Your task to perform on an android device: turn pop-ups on in chrome Image 0: 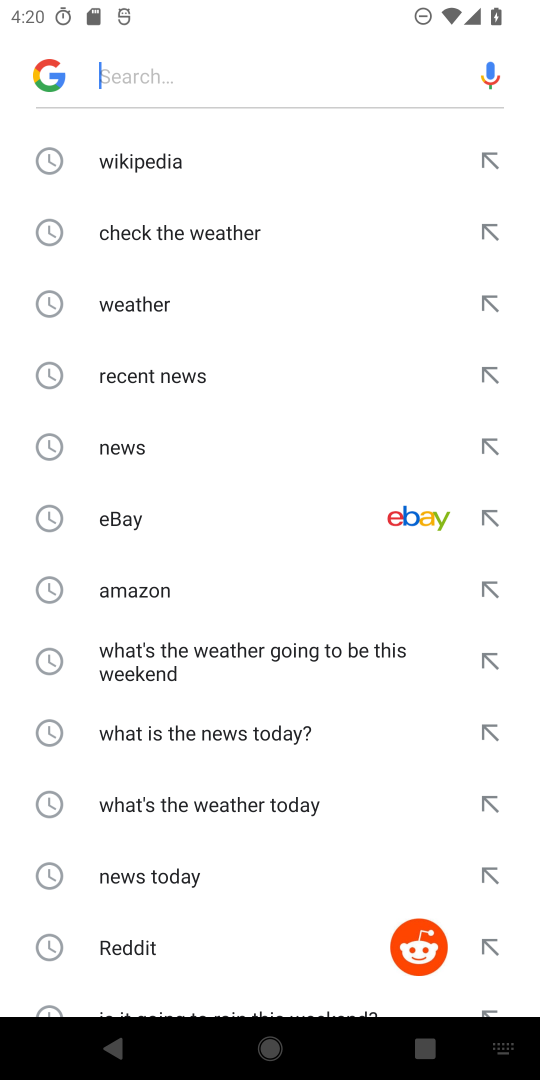
Step 0: press home button
Your task to perform on an android device: turn pop-ups on in chrome Image 1: 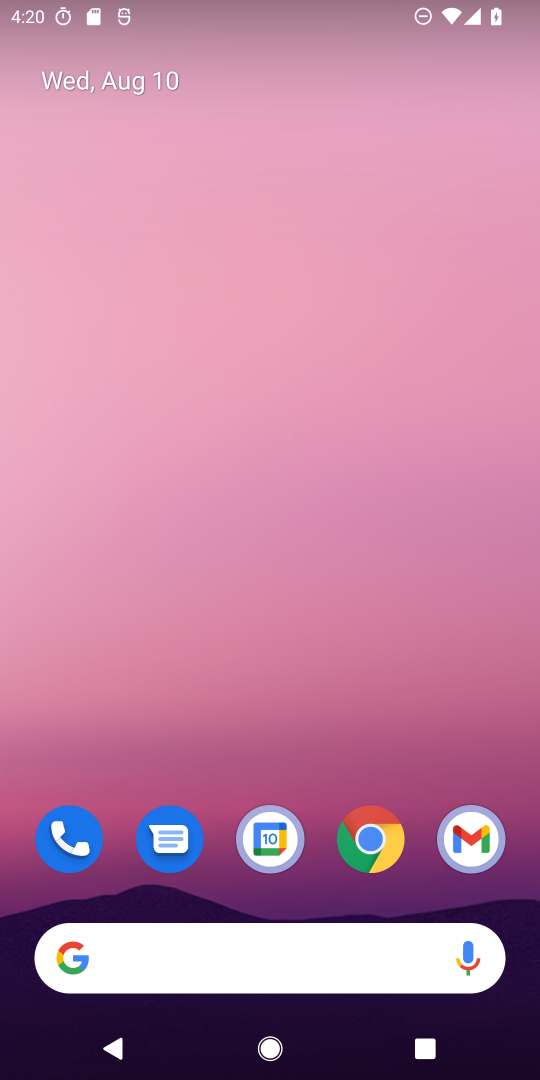
Step 1: click (373, 853)
Your task to perform on an android device: turn pop-ups on in chrome Image 2: 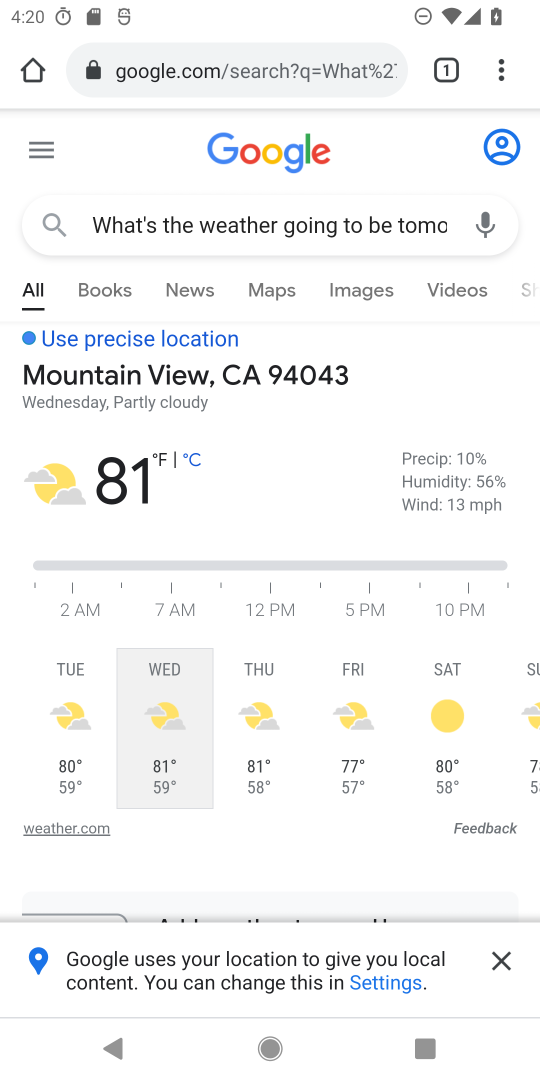
Step 2: click (504, 79)
Your task to perform on an android device: turn pop-ups on in chrome Image 3: 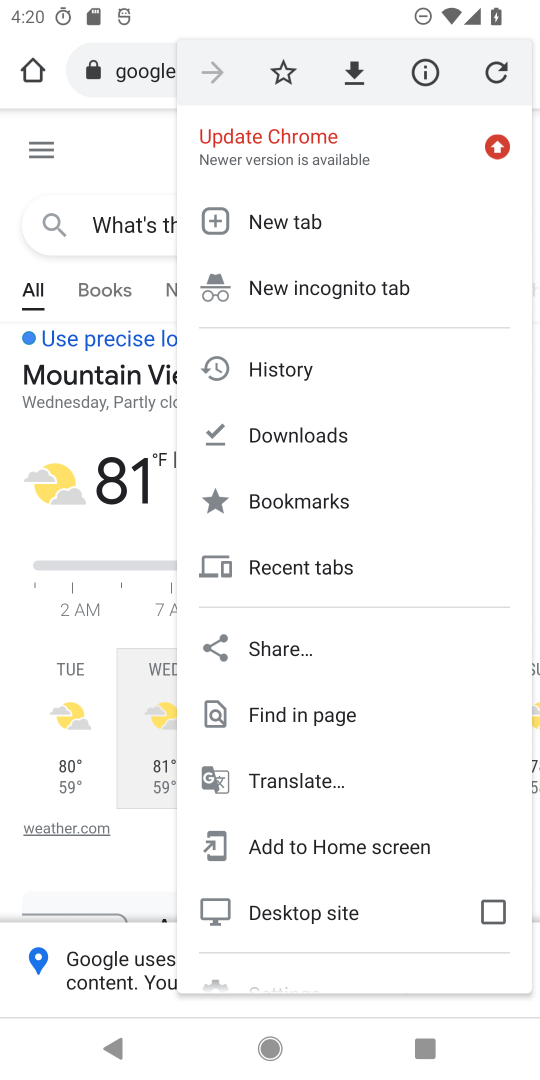
Step 3: drag from (440, 942) to (415, 633)
Your task to perform on an android device: turn pop-ups on in chrome Image 4: 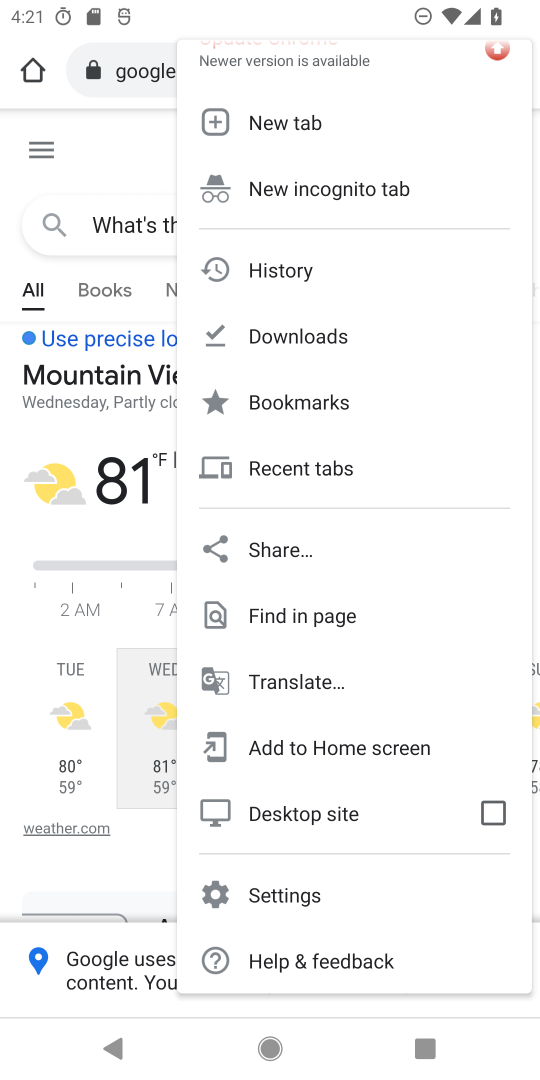
Step 4: click (290, 897)
Your task to perform on an android device: turn pop-ups on in chrome Image 5: 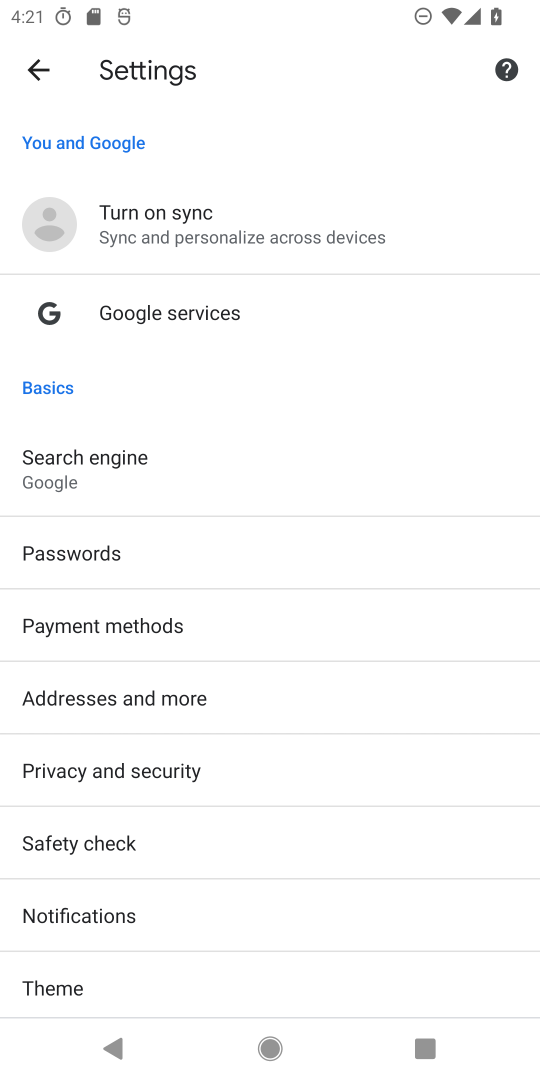
Step 5: drag from (331, 957) to (271, 461)
Your task to perform on an android device: turn pop-ups on in chrome Image 6: 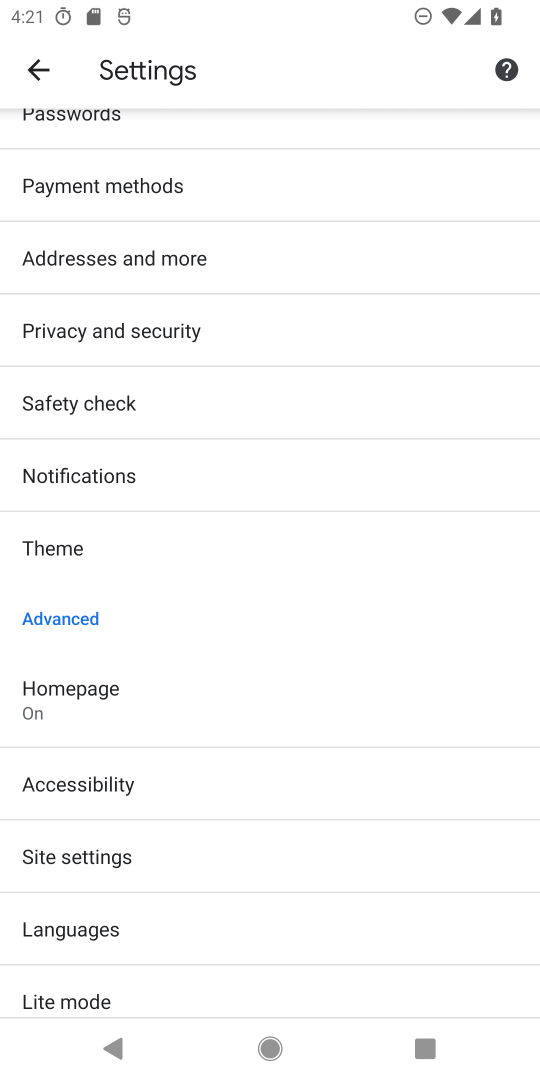
Step 6: click (94, 856)
Your task to perform on an android device: turn pop-ups on in chrome Image 7: 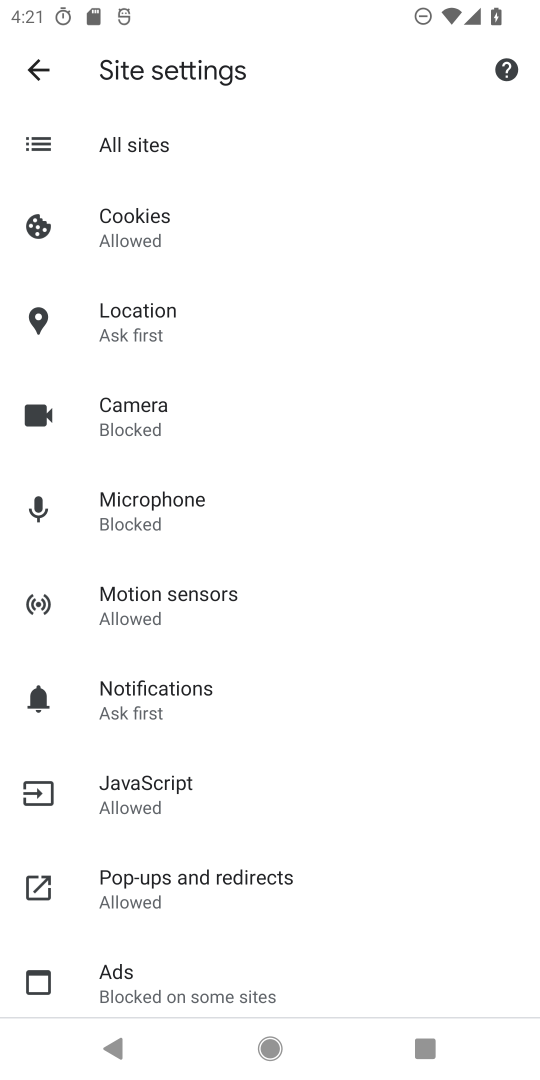
Step 7: click (169, 886)
Your task to perform on an android device: turn pop-ups on in chrome Image 8: 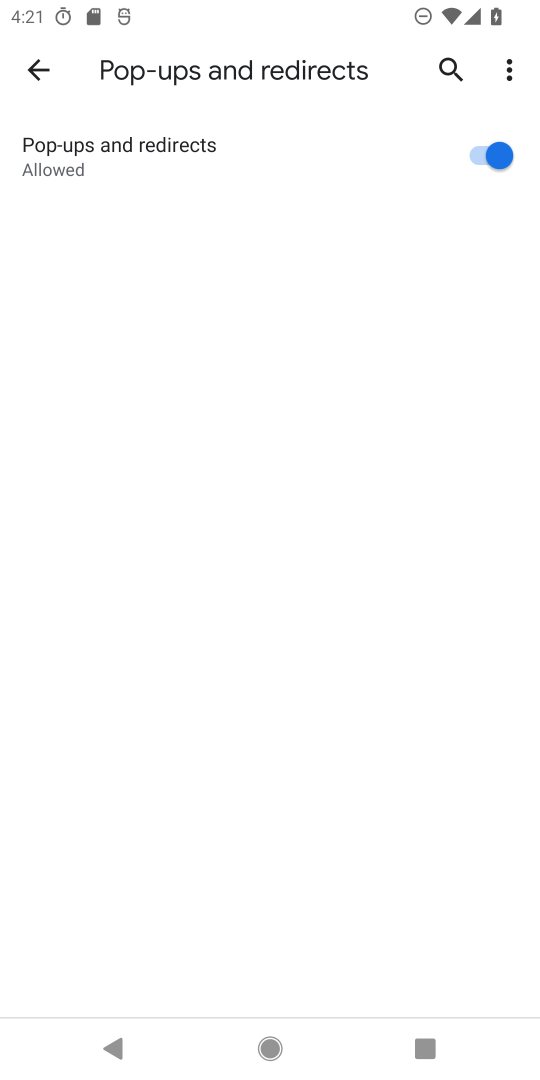
Step 8: task complete